Your task to perform on an android device: turn off improve location accuracy Image 0: 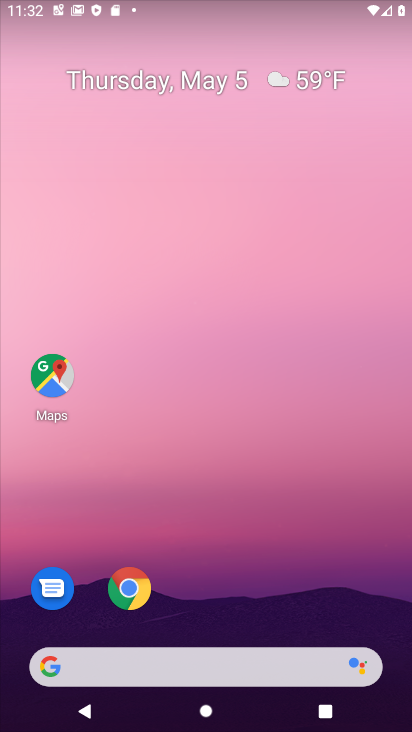
Step 0: drag from (200, 581) to (244, 52)
Your task to perform on an android device: turn off improve location accuracy Image 1: 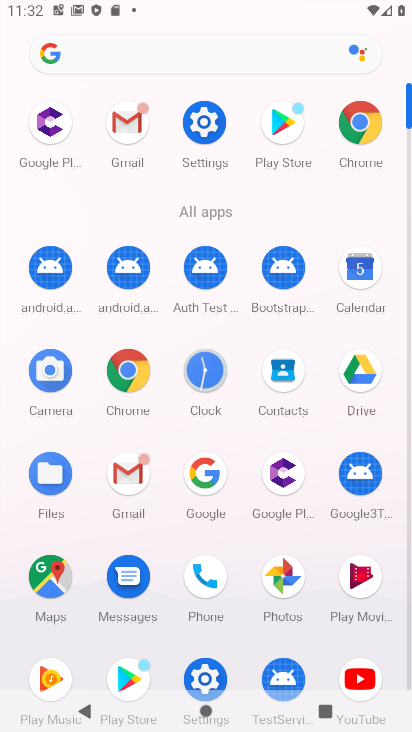
Step 1: click (208, 130)
Your task to perform on an android device: turn off improve location accuracy Image 2: 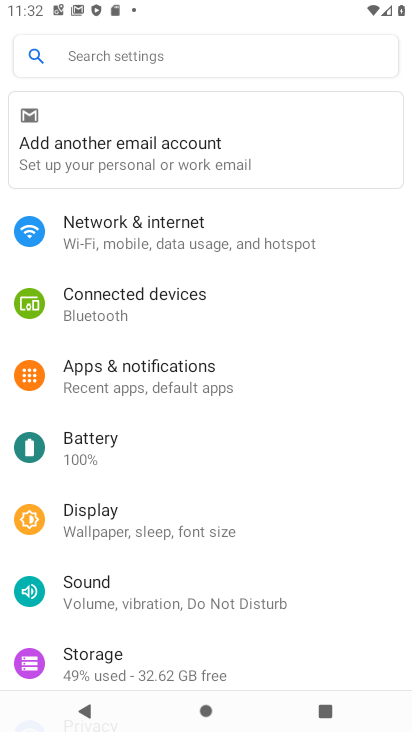
Step 2: drag from (169, 627) to (245, 106)
Your task to perform on an android device: turn off improve location accuracy Image 3: 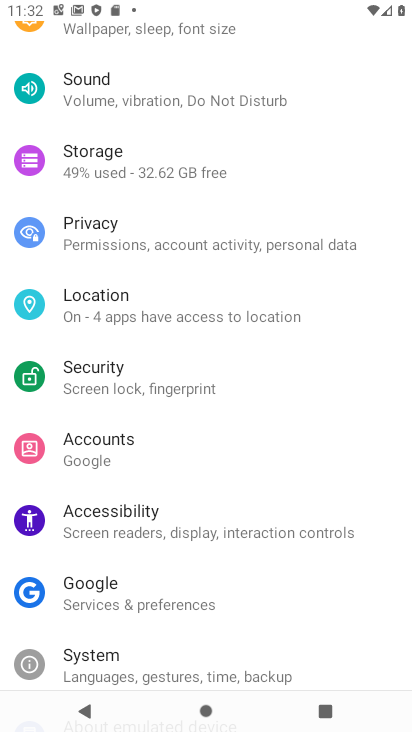
Step 3: click (109, 298)
Your task to perform on an android device: turn off improve location accuracy Image 4: 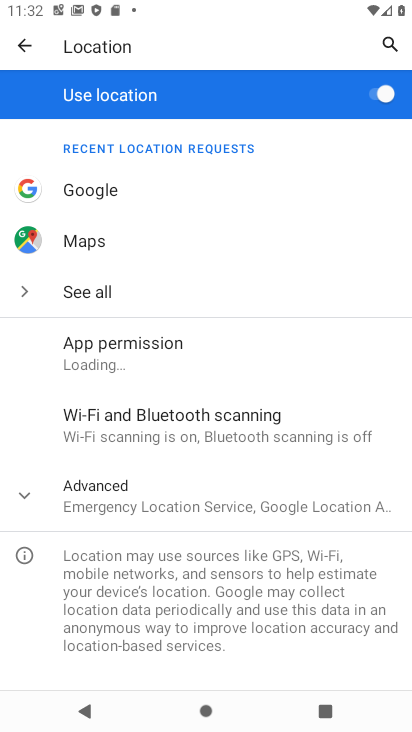
Step 4: click (99, 495)
Your task to perform on an android device: turn off improve location accuracy Image 5: 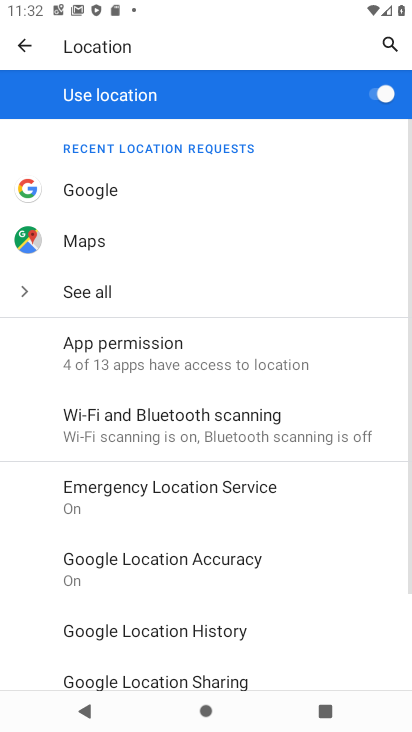
Step 5: click (150, 566)
Your task to perform on an android device: turn off improve location accuracy Image 6: 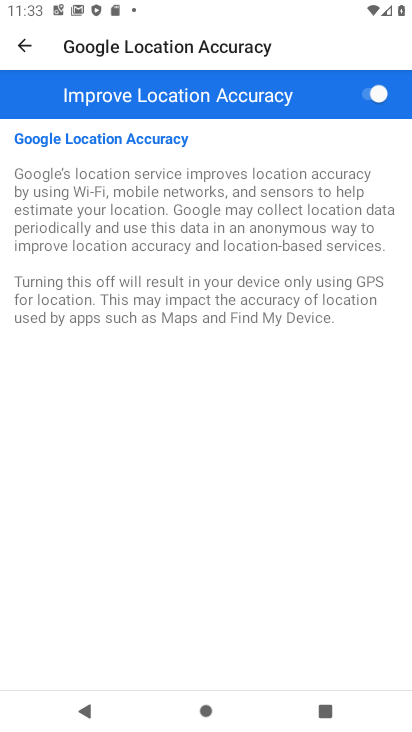
Step 6: click (366, 98)
Your task to perform on an android device: turn off improve location accuracy Image 7: 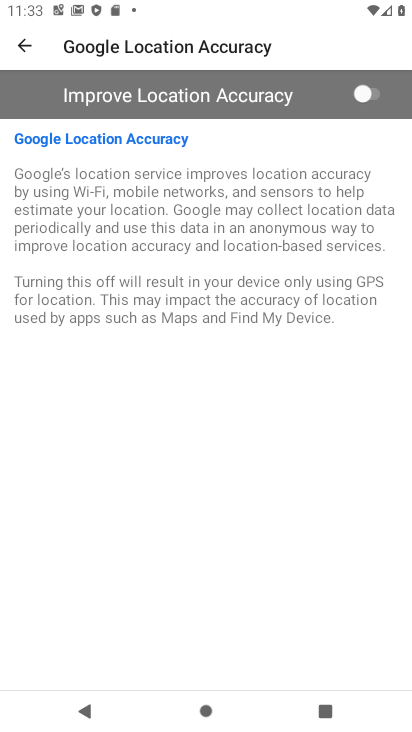
Step 7: task complete